Your task to perform on an android device: Open Amazon Image 0: 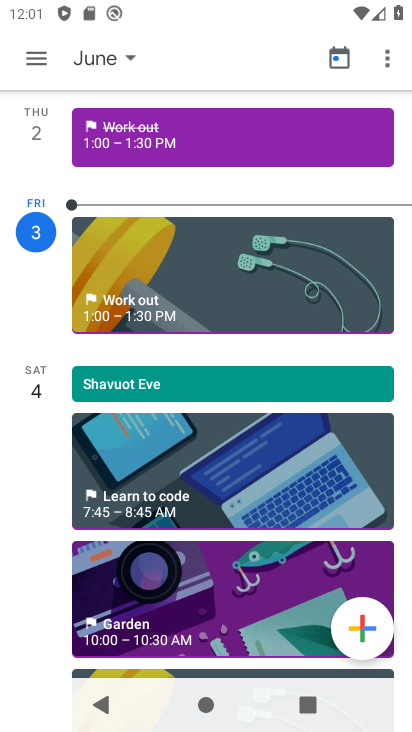
Step 0: press home button
Your task to perform on an android device: Open Amazon Image 1: 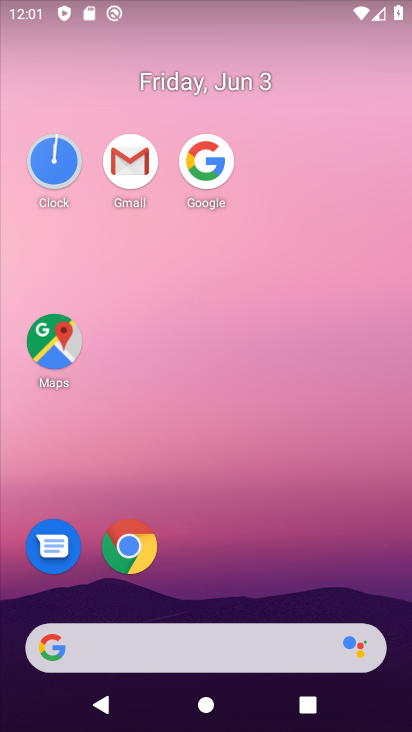
Step 1: click (147, 523)
Your task to perform on an android device: Open Amazon Image 2: 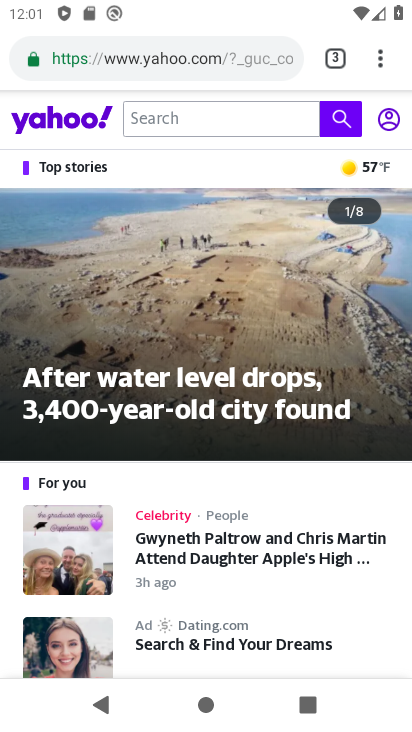
Step 2: click (329, 58)
Your task to perform on an android device: Open Amazon Image 3: 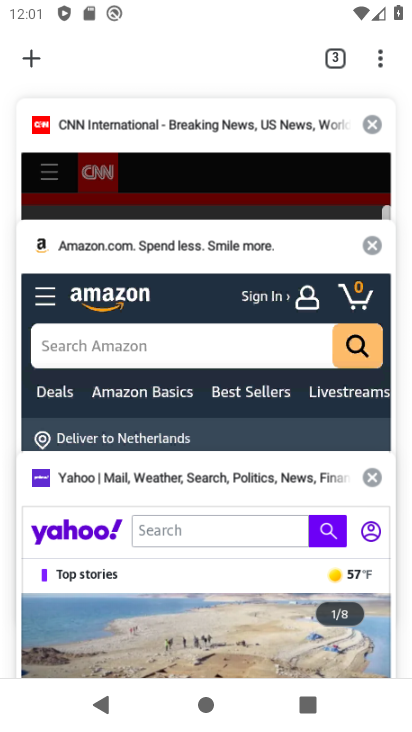
Step 3: click (101, 243)
Your task to perform on an android device: Open Amazon Image 4: 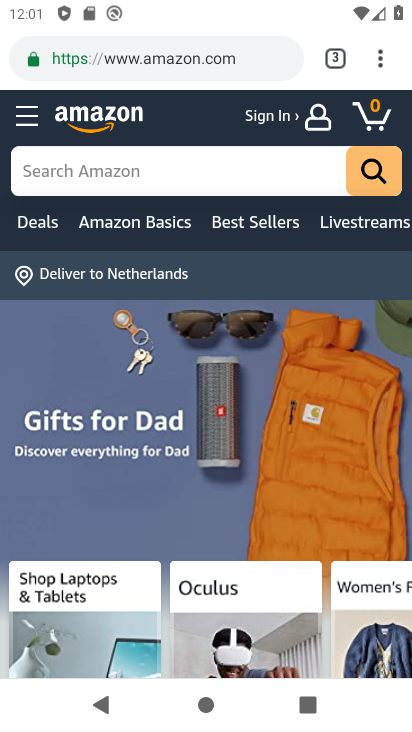
Step 4: task complete